Your task to perform on an android device: Open battery settings Image 0: 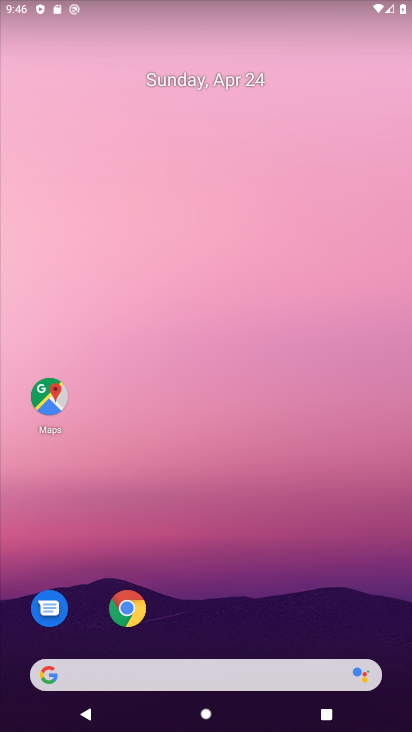
Step 0: drag from (292, 683) to (297, 49)
Your task to perform on an android device: Open battery settings Image 1: 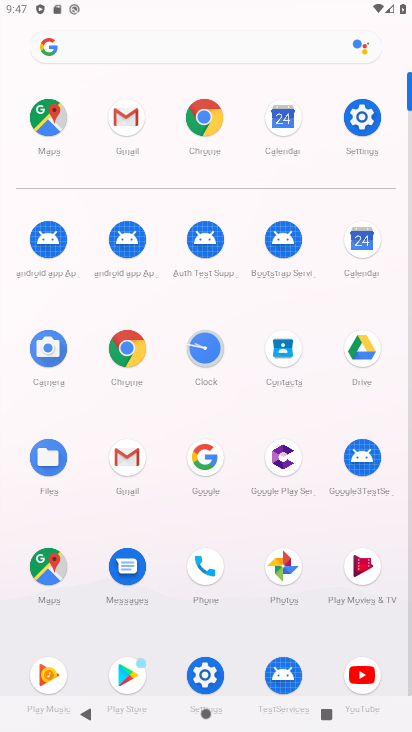
Step 1: click (355, 114)
Your task to perform on an android device: Open battery settings Image 2: 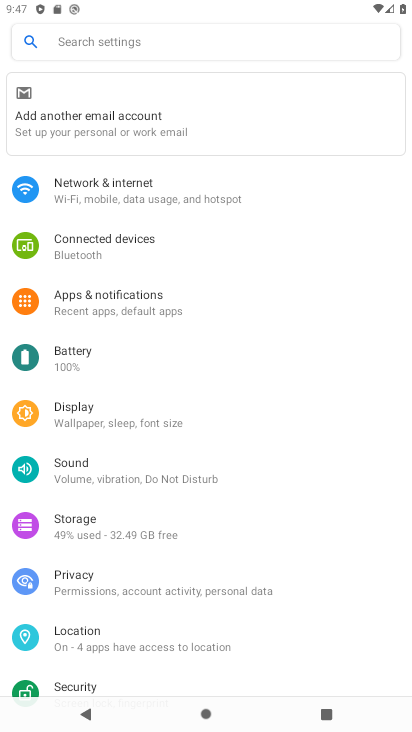
Step 2: click (126, 347)
Your task to perform on an android device: Open battery settings Image 3: 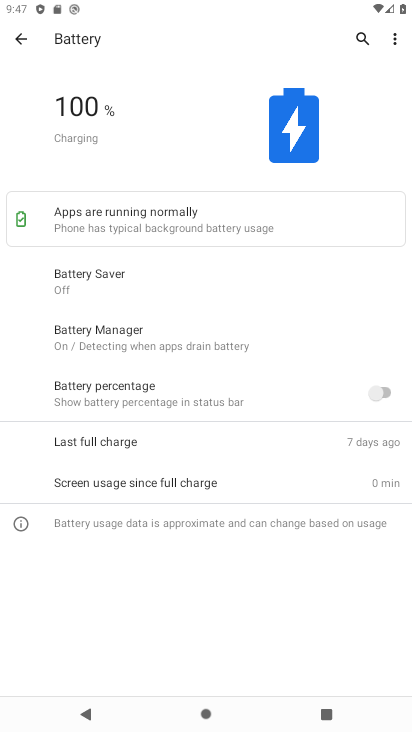
Step 3: task complete